Your task to perform on an android device: Go to Wikipedia Image 0: 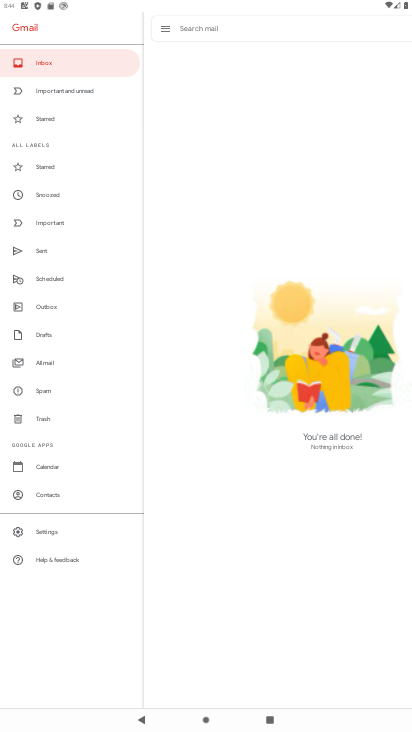
Step 0: press home button
Your task to perform on an android device: Go to Wikipedia Image 1: 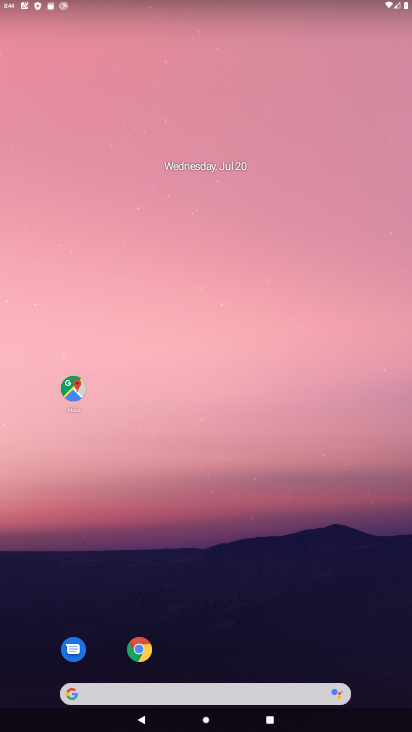
Step 1: drag from (239, 657) to (187, 94)
Your task to perform on an android device: Go to Wikipedia Image 2: 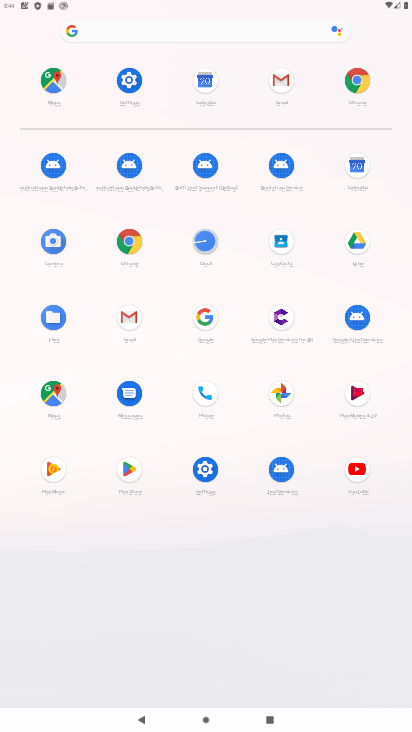
Step 2: click (117, 90)
Your task to perform on an android device: Go to Wikipedia Image 3: 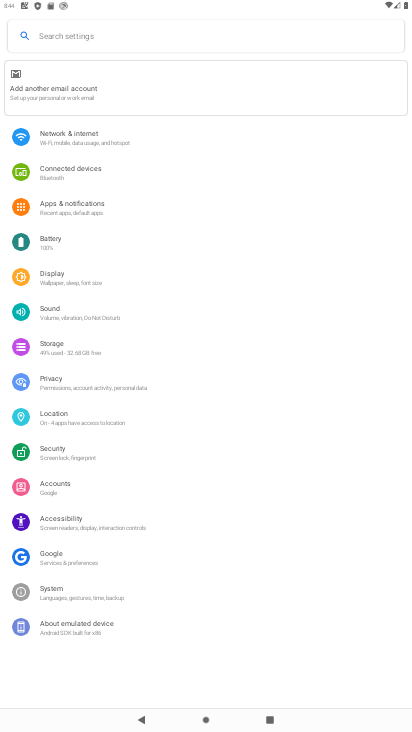
Step 3: task complete